Your task to perform on an android device: Open the calendar and show me this week's events? Image 0: 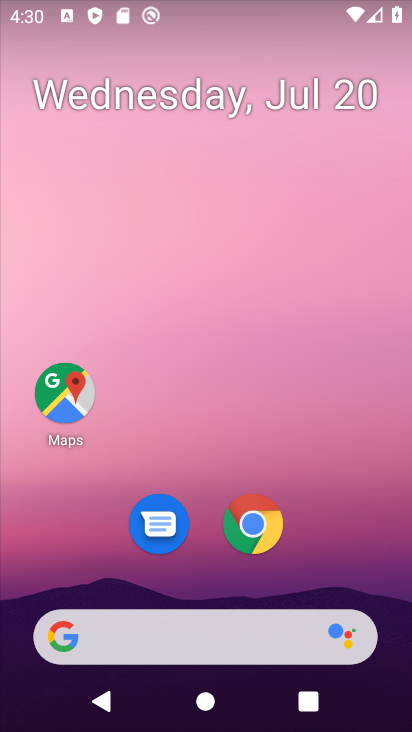
Step 0: drag from (327, 542) to (341, 103)
Your task to perform on an android device: Open the calendar and show me this week's events? Image 1: 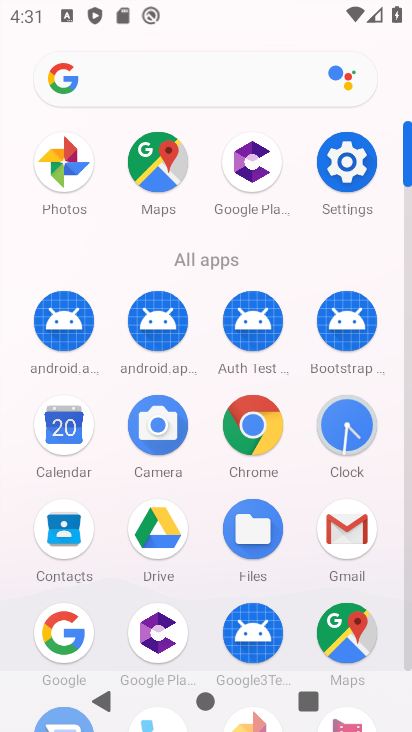
Step 1: click (71, 429)
Your task to perform on an android device: Open the calendar and show me this week's events? Image 2: 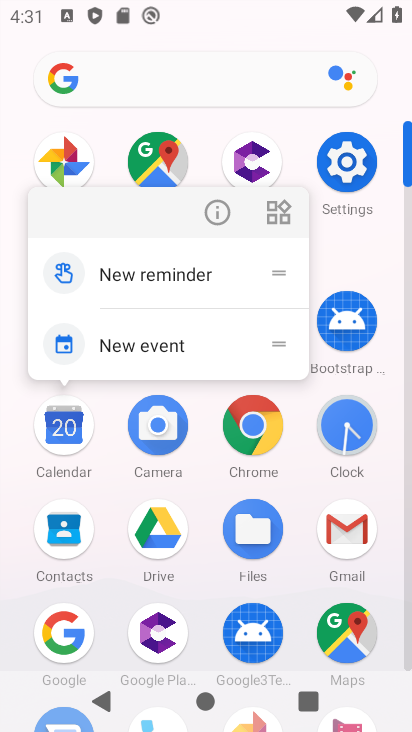
Step 2: click (65, 425)
Your task to perform on an android device: Open the calendar and show me this week's events? Image 3: 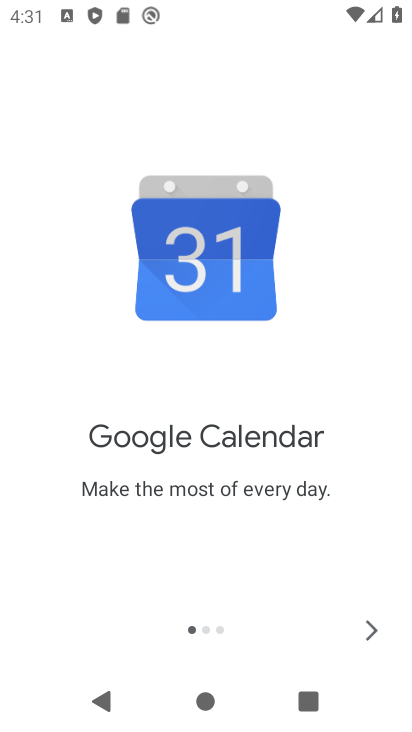
Step 3: click (371, 630)
Your task to perform on an android device: Open the calendar and show me this week's events? Image 4: 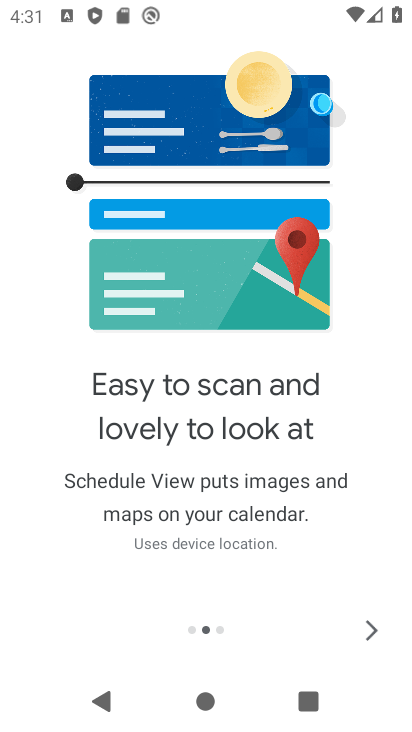
Step 4: click (371, 630)
Your task to perform on an android device: Open the calendar and show me this week's events? Image 5: 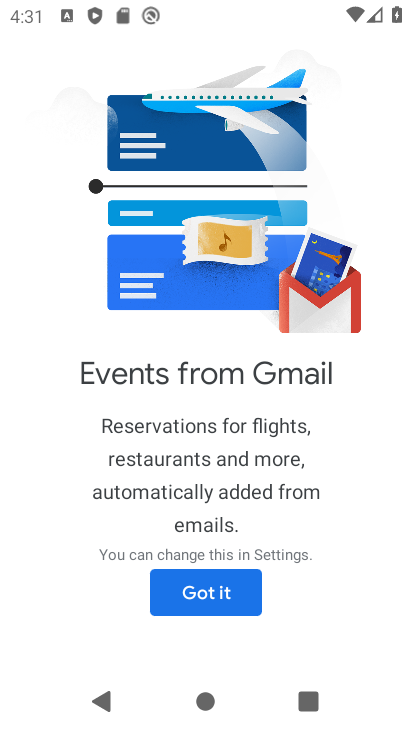
Step 5: click (214, 591)
Your task to perform on an android device: Open the calendar and show me this week's events? Image 6: 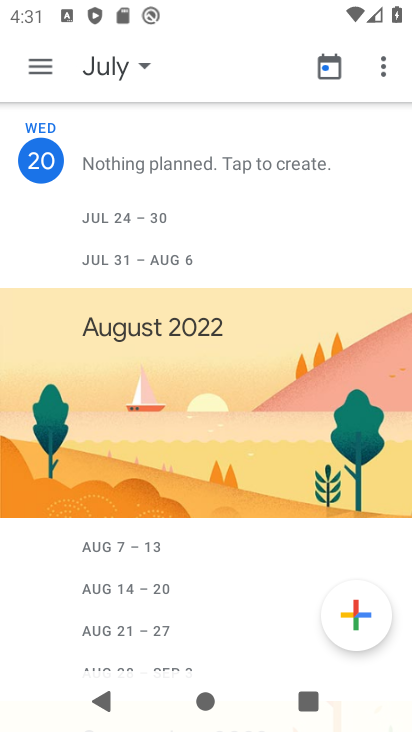
Step 6: click (41, 54)
Your task to perform on an android device: Open the calendar and show me this week's events? Image 7: 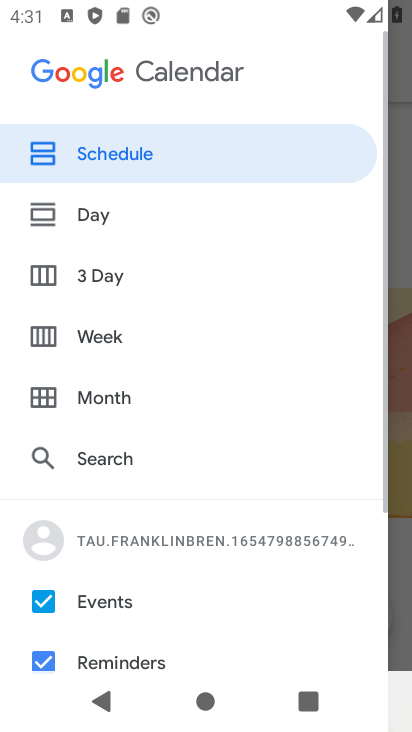
Step 7: click (37, 332)
Your task to perform on an android device: Open the calendar and show me this week's events? Image 8: 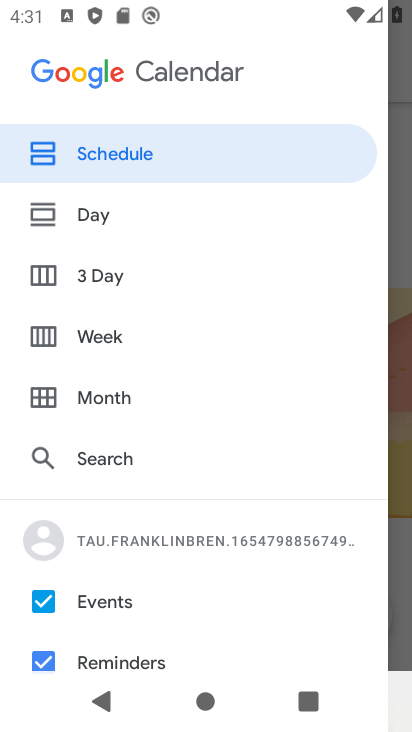
Step 8: click (40, 333)
Your task to perform on an android device: Open the calendar and show me this week's events? Image 9: 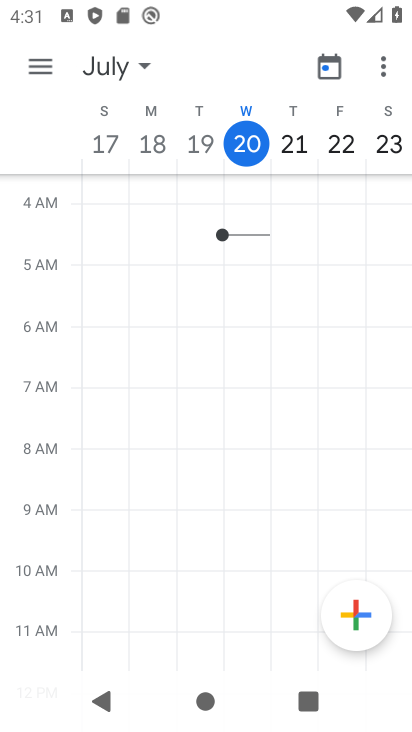
Step 9: task complete